Your task to perform on an android device: toggle javascript in the chrome app Image 0: 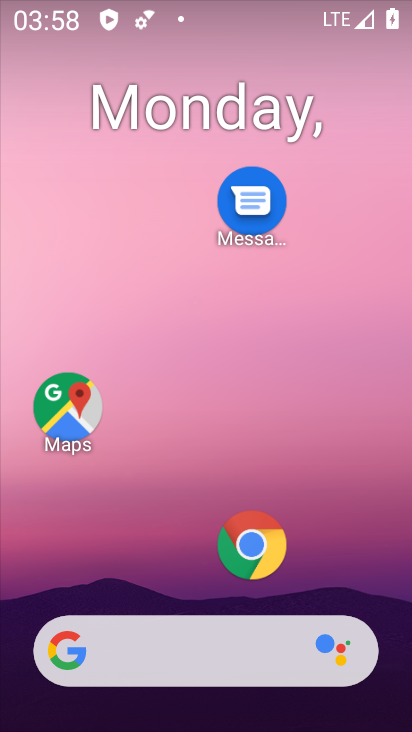
Step 0: click (262, 543)
Your task to perform on an android device: toggle javascript in the chrome app Image 1: 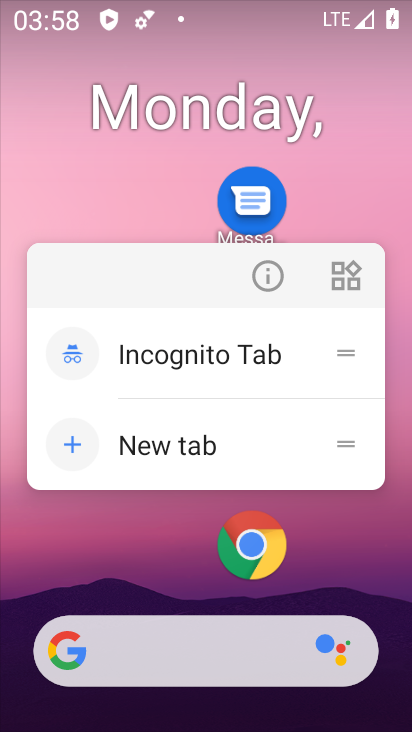
Step 1: click (255, 544)
Your task to perform on an android device: toggle javascript in the chrome app Image 2: 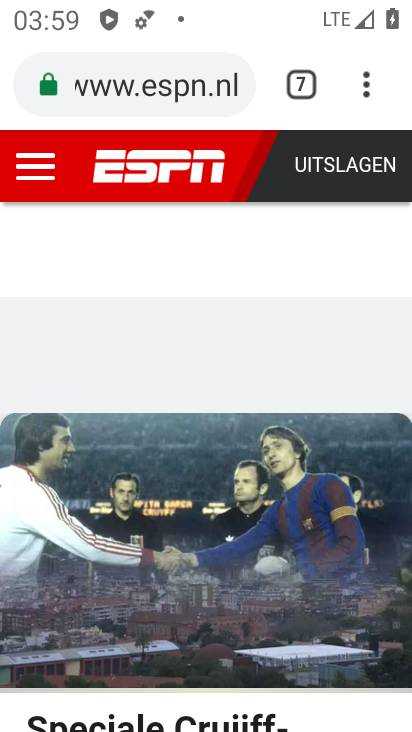
Step 2: drag from (363, 79) to (121, 585)
Your task to perform on an android device: toggle javascript in the chrome app Image 3: 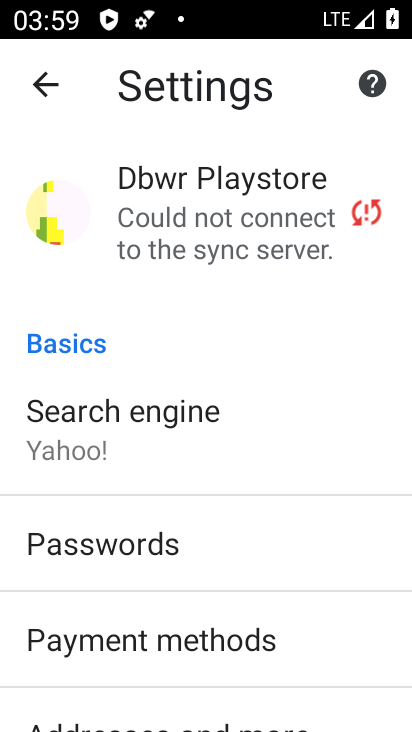
Step 3: drag from (176, 658) to (288, 233)
Your task to perform on an android device: toggle javascript in the chrome app Image 4: 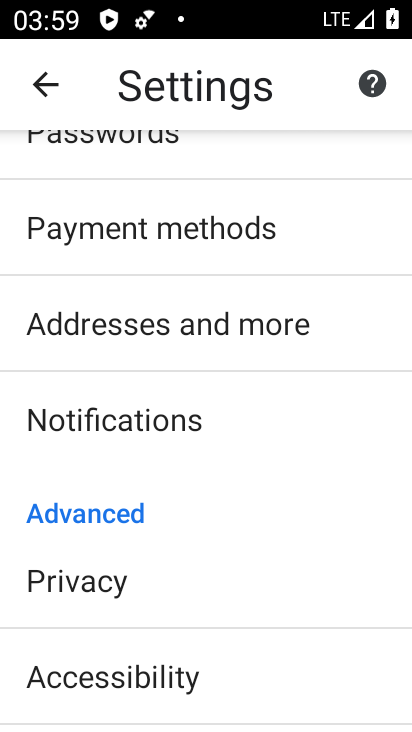
Step 4: drag from (141, 640) to (188, 413)
Your task to perform on an android device: toggle javascript in the chrome app Image 5: 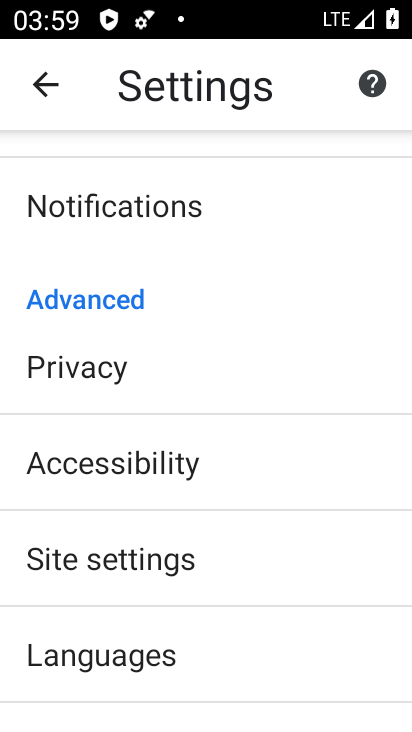
Step 5: click (137, 568)
Your task to perform on an android device: toggle javascript in the chrome app Image 6: 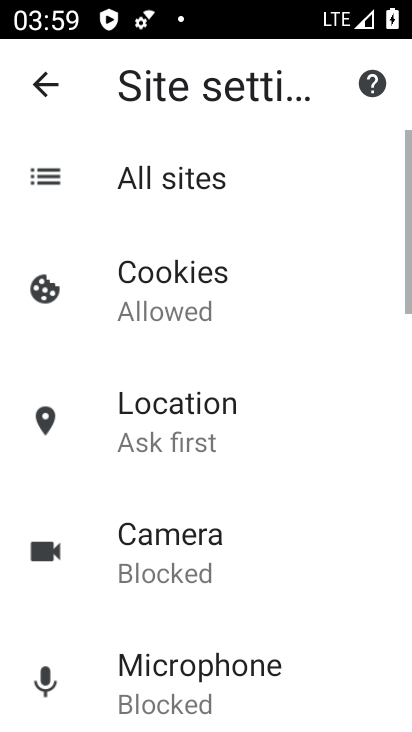
Step 6: drag from (173, 642) to (301, 154)
Your task to perform on an android device: toggle javascript in the chrome app Image 7: 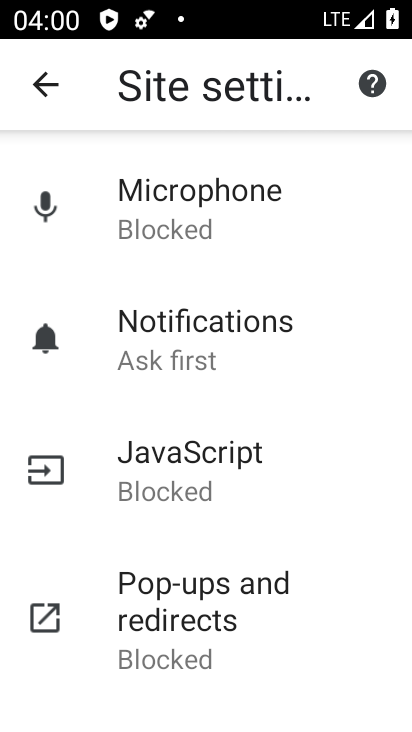
Step 7: click (177, 454)
Your task to perform on an android device: toggle javascript in the chrome app Image 8: 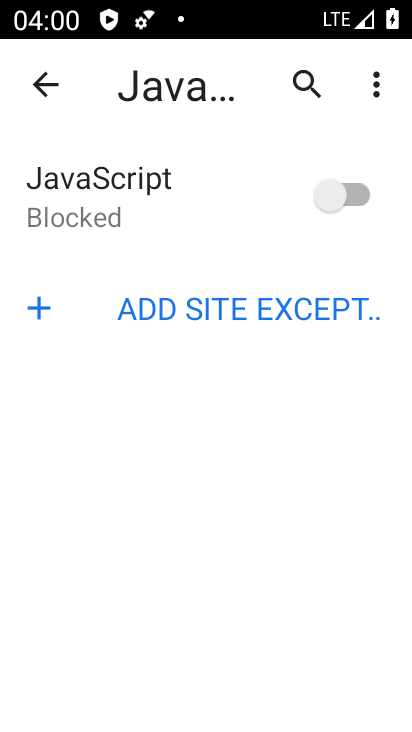
Step 8: click (333, 191)
Your task to perform on an android device: toggle javascript in the chrome app Image 9: 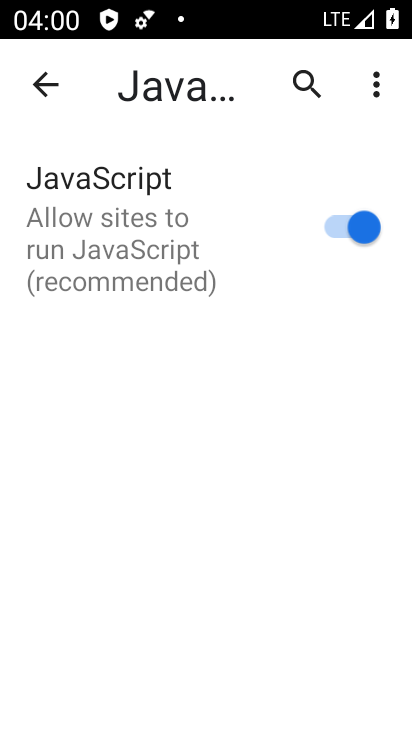
Step 9: task complete